Your task to perform on an android device: Go to accessibility settings Image 0: 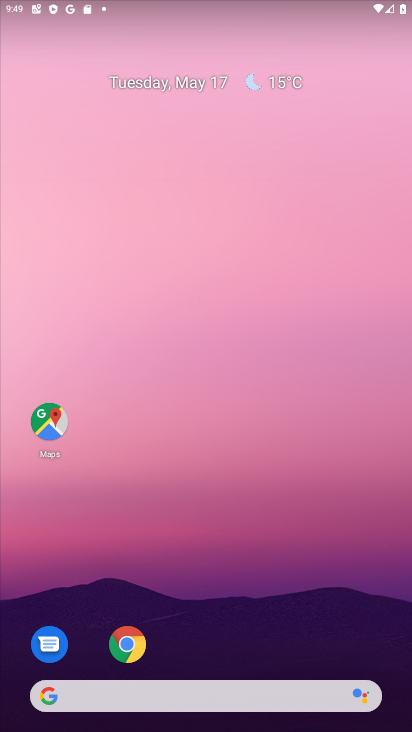
Step 0: drag from (220, 649) to (219, 278)
Your task to perform on an android device: Go to accessibility settings Image 1: 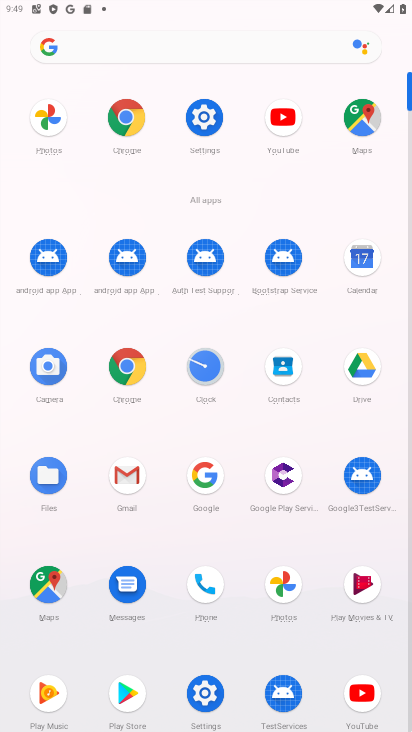
Step 1: click (206, 124)
Your task to perform on an android device: Go to accessibility settings Image 2: 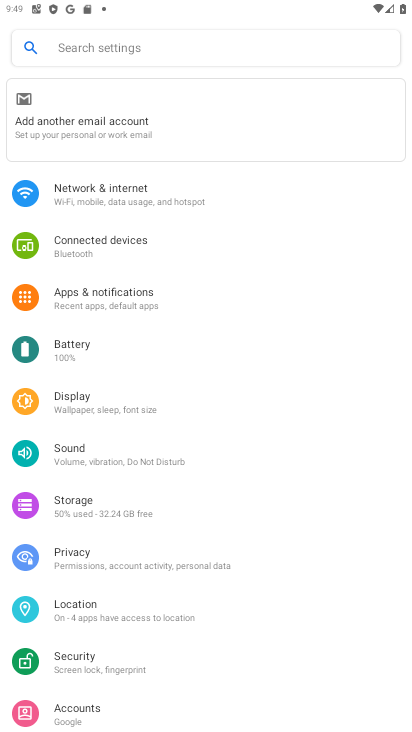
Step 2: drag from (183, 508) to (195, 243)
Your task to perform on an android device: Go to accessibility settings Image 3: 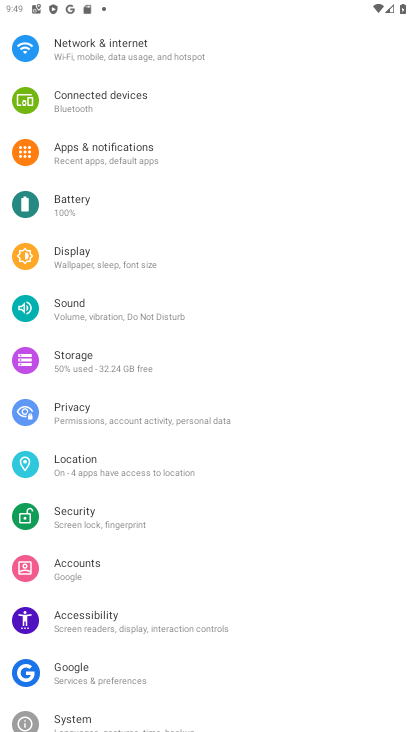
Step 3: click (82, 624)
Your task to perform on an android device: Go to accessibility settings Image 4: 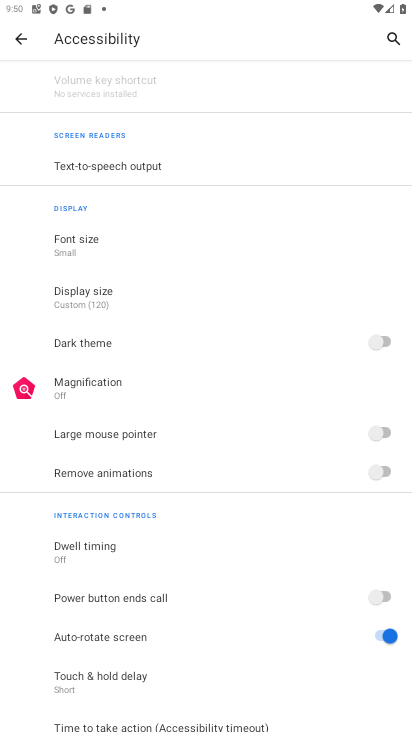
Step 4: task complete